Your task to perform on an android device: turn on priority inbox in the gmail app Image 0: 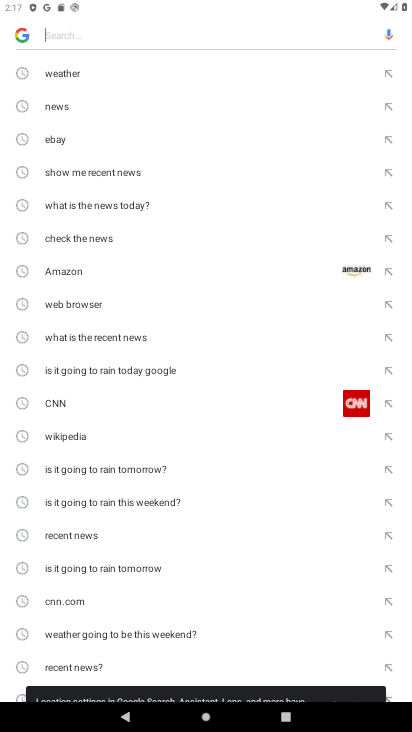
Step 0: press home button
Your task to perform on an android device: turn on priority inbox in the gmail app Image 1: 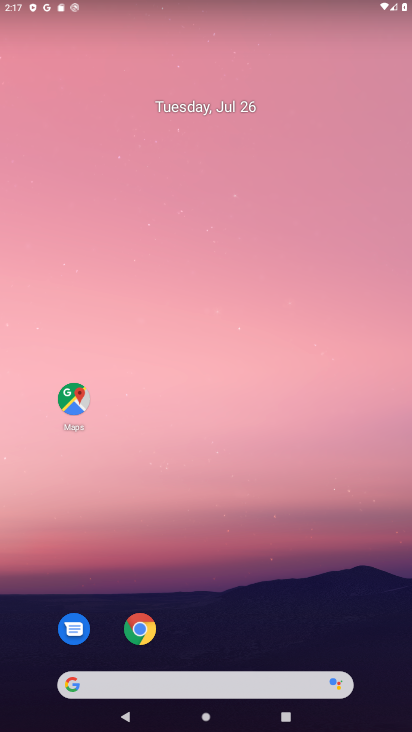
Step 1: drag from (356, 625) to (270, 215)
Your task to perform on an android device: turn on priority inbox in the gmail app Image 2: 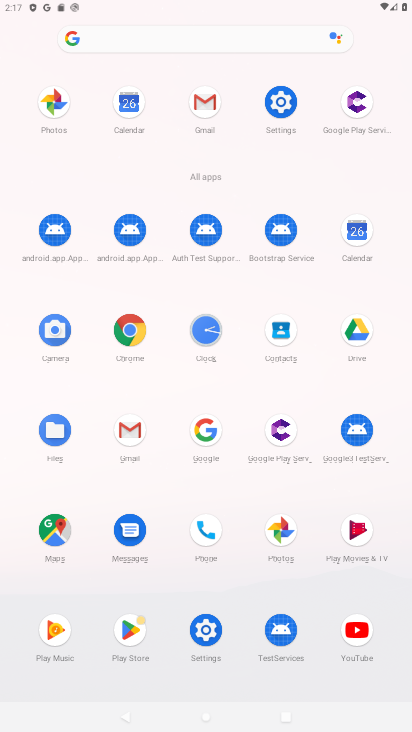
Step 2: click (208, 106)
Your task to perform on an android device: turn on priority inbox in the gmail app Image 3: 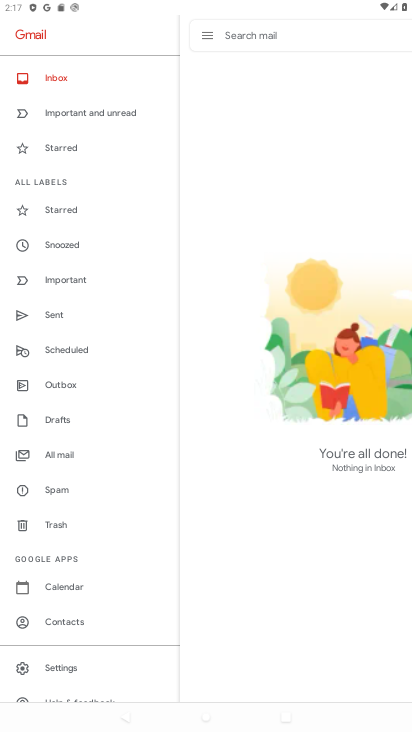
Step 3: click (91, 665)
Your task to perform on an android device: turn on priority inbox in the gmail app Image 4: 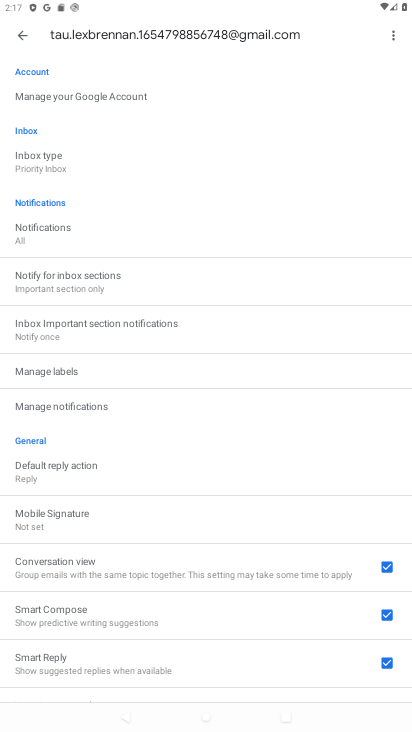
Step 4: click (122, 166)
Your task to perform on an android device: turn on priority inbox in the gmail app Image 5: 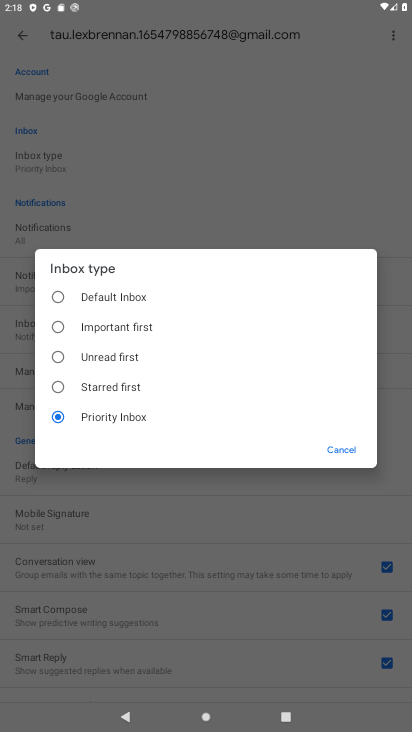
Step 5: task complete